Your task to perform on an android device: create a new album in the google photos Image 0: 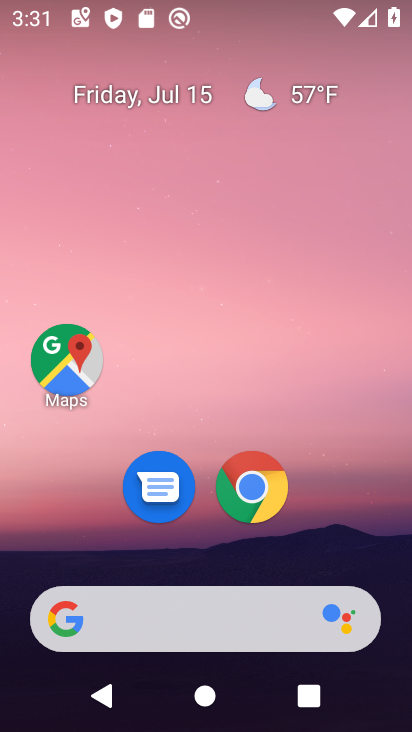
Step 0: drag from (176, 620) to (225, 210)
Your task to perform on an android device: create a new album in the google photos Image 1: 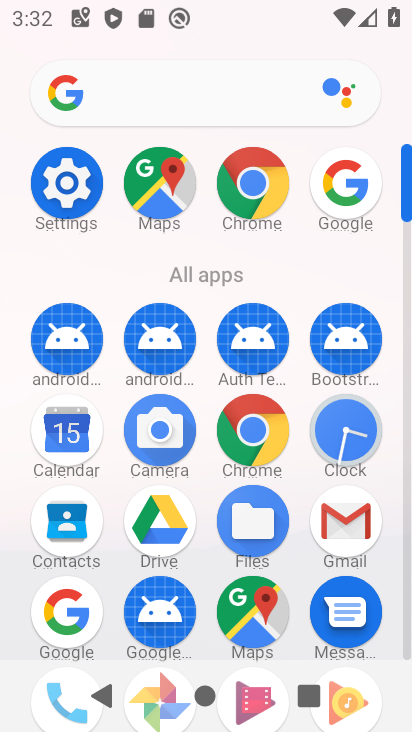
Step 1: drag from (282, 518) to (336, 177)
Your task to perform on an android device: create a new album in the google photos Image 2: 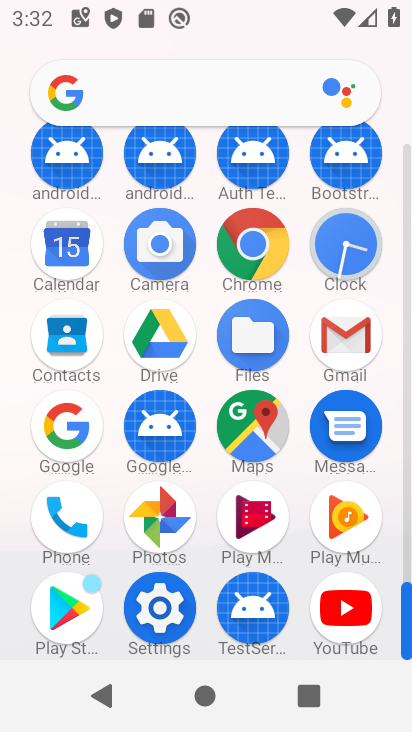
Step 2: click (164, 531)
Your task to perform on an android device: create a new album in the google photos Image 3: 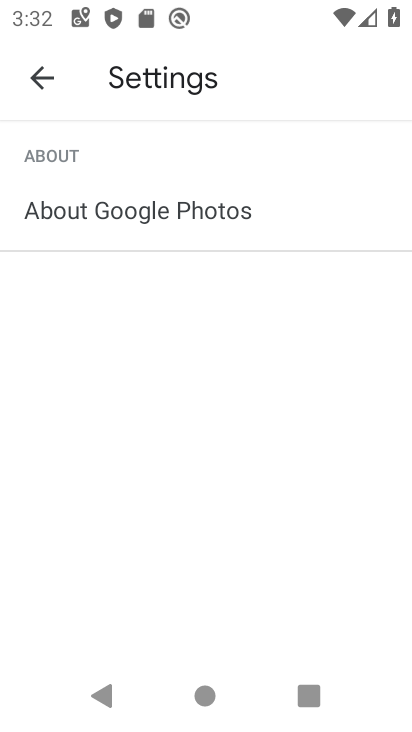
Step 3: click (55, 89)
Your task to perform on an android device: create a new album in the google photos Image 4: 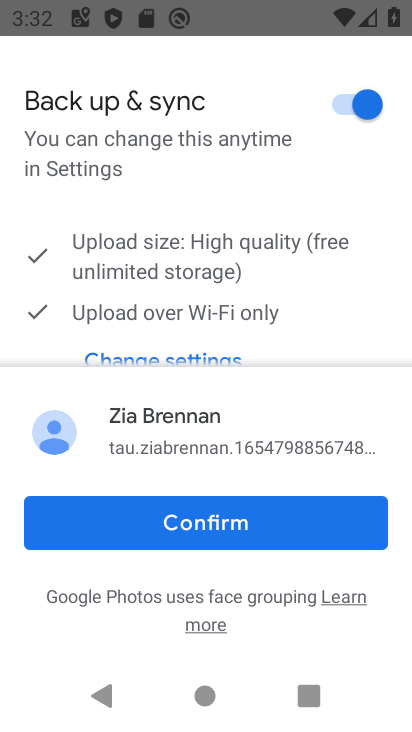
Step 4: click (164, 536)
Your task to perform on an android device: create a new album in the google photos Image 5: 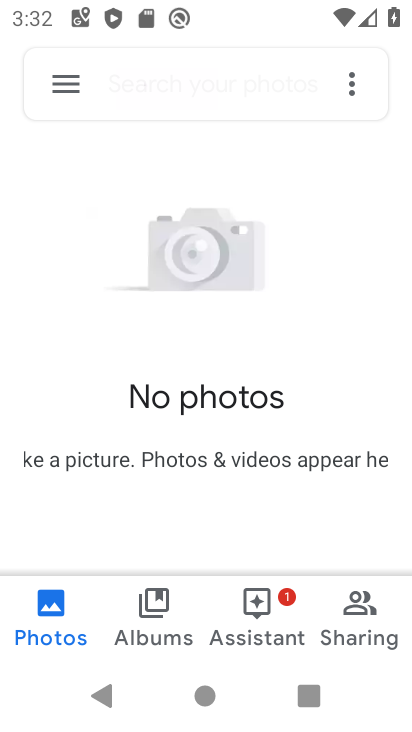
Step 5: click (169, 621)
Your task to perform on an android device: create a new album in the google photos Image 6: 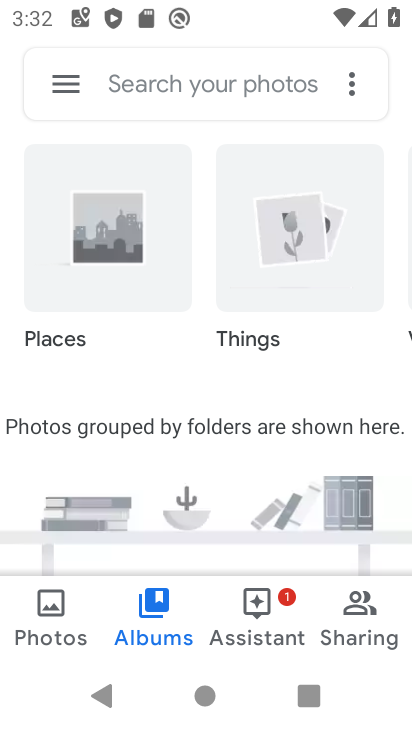
Step 6: task complete